Your task to perform on an android device: Open Amazon Image 0: 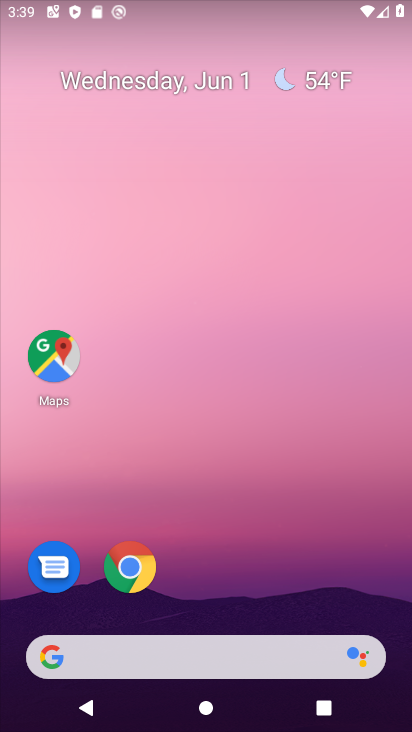
Step 0: drag from (219, 640) to (225, 354)
Your task to perform on an android device: Open Amazon Image 1: 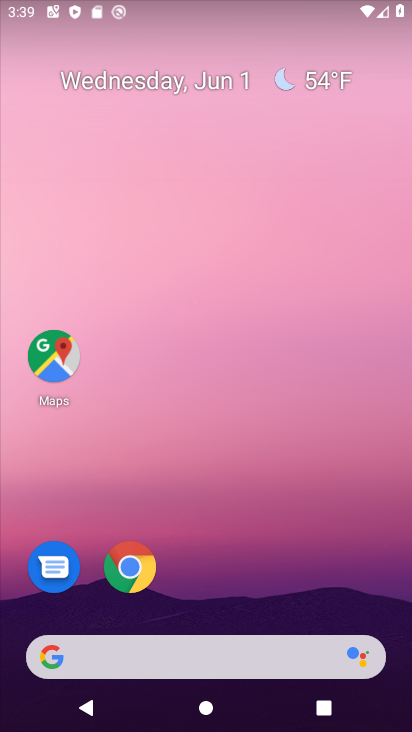
Step 1: drag from (316, 618) to (327, 143)
Your task to perform on an android device: Open Amazon Image 2: 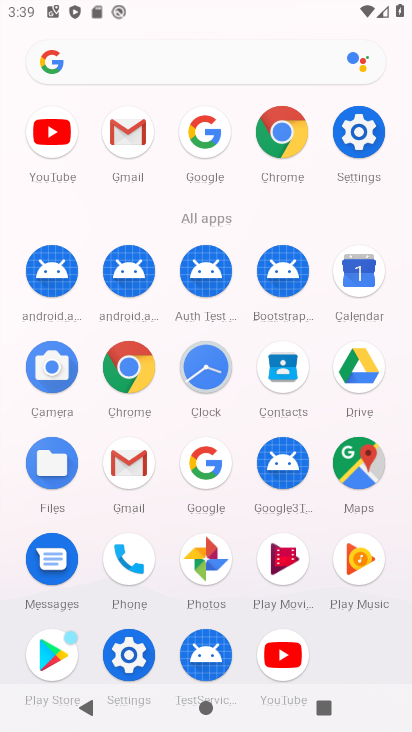
Step 2: click (370, 128)
Your task to perform on an android device: Open Amazon Image 3: 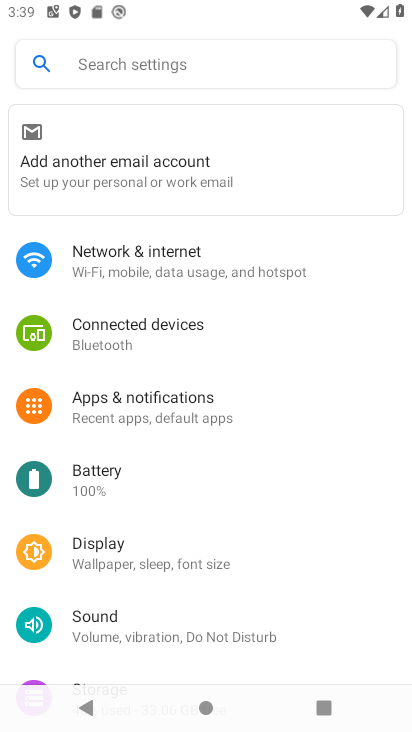
Step 3: click (182, 259)
Your task to perform on an android device: Open Amazon Image 4: 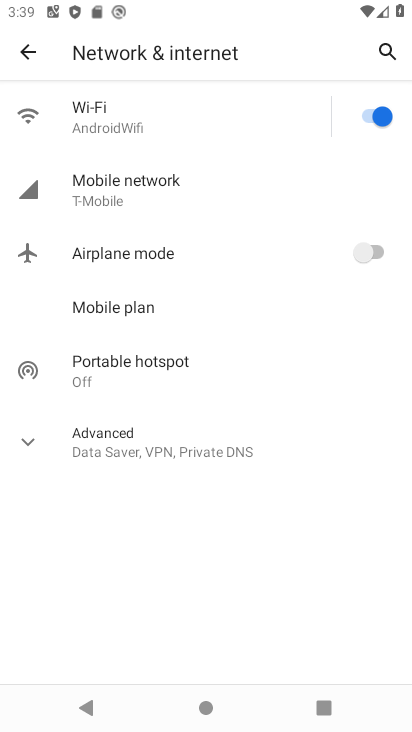
Step 4: task complete